Your task to perform on an android device: turn on wifi Image 0: 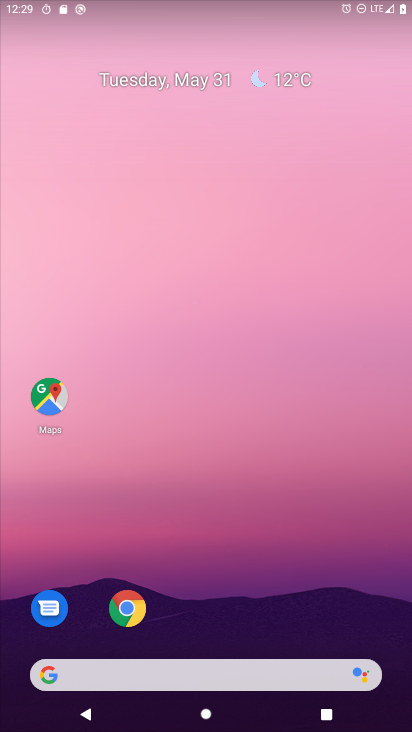
Step 0: drag from (309, 410) to (312, 20)
Your task to perform on an android device: turn on wifi Image 1: 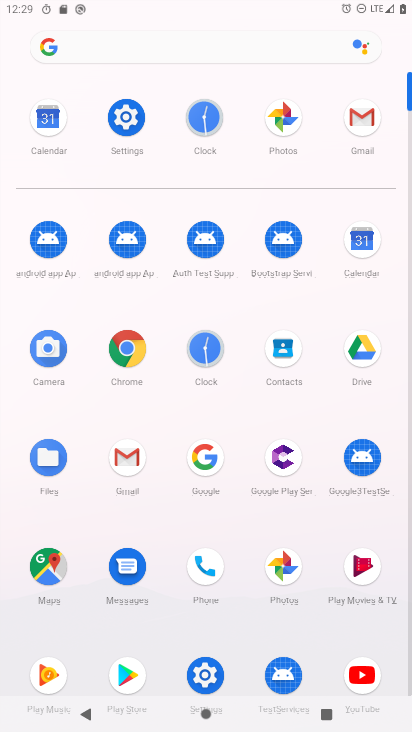
Step 1: click (125, 121)
Your task to perform on an android device: turn on wifi Image 2: 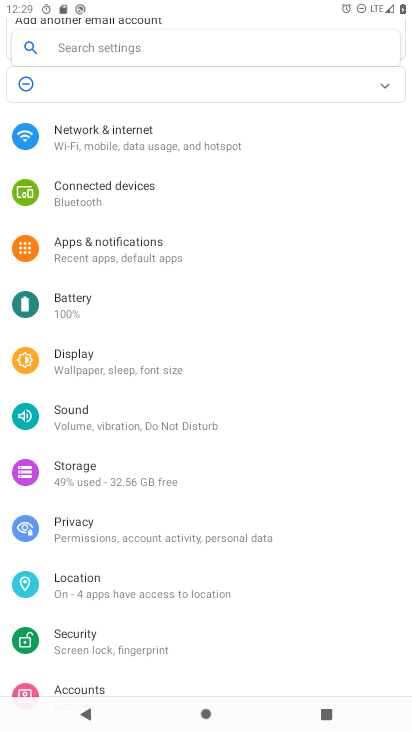
Step 2: click (131, 144)
Your task to perform on an android device: turn on wifi Image 3: 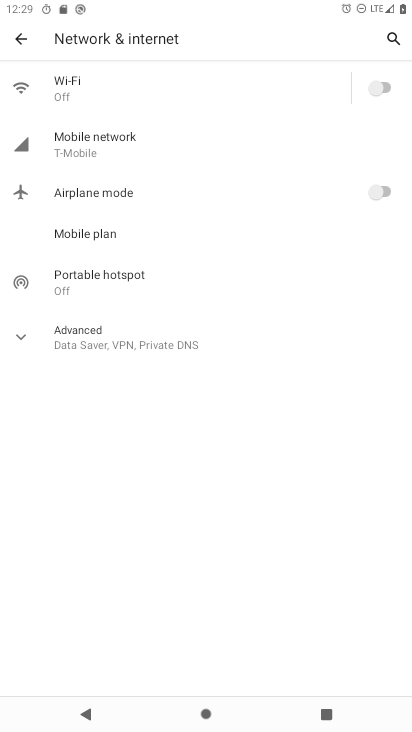
Step 3: click (380, 91)
Your task to perform on an android device: turn on wifi Image 4: 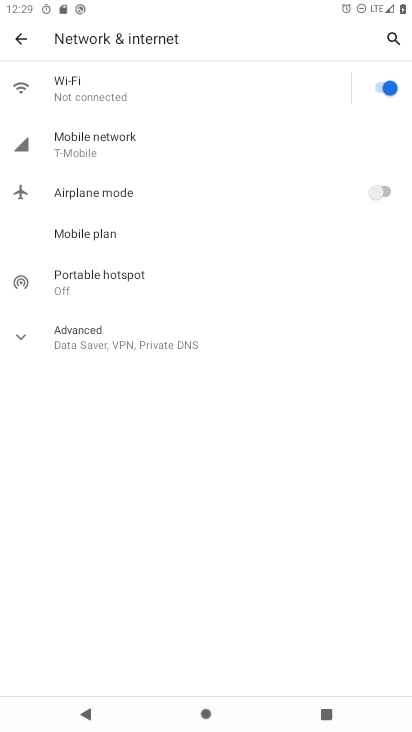
Step 4: task complete